Your task to perform on an android device: When is my next appointment? Image 0: 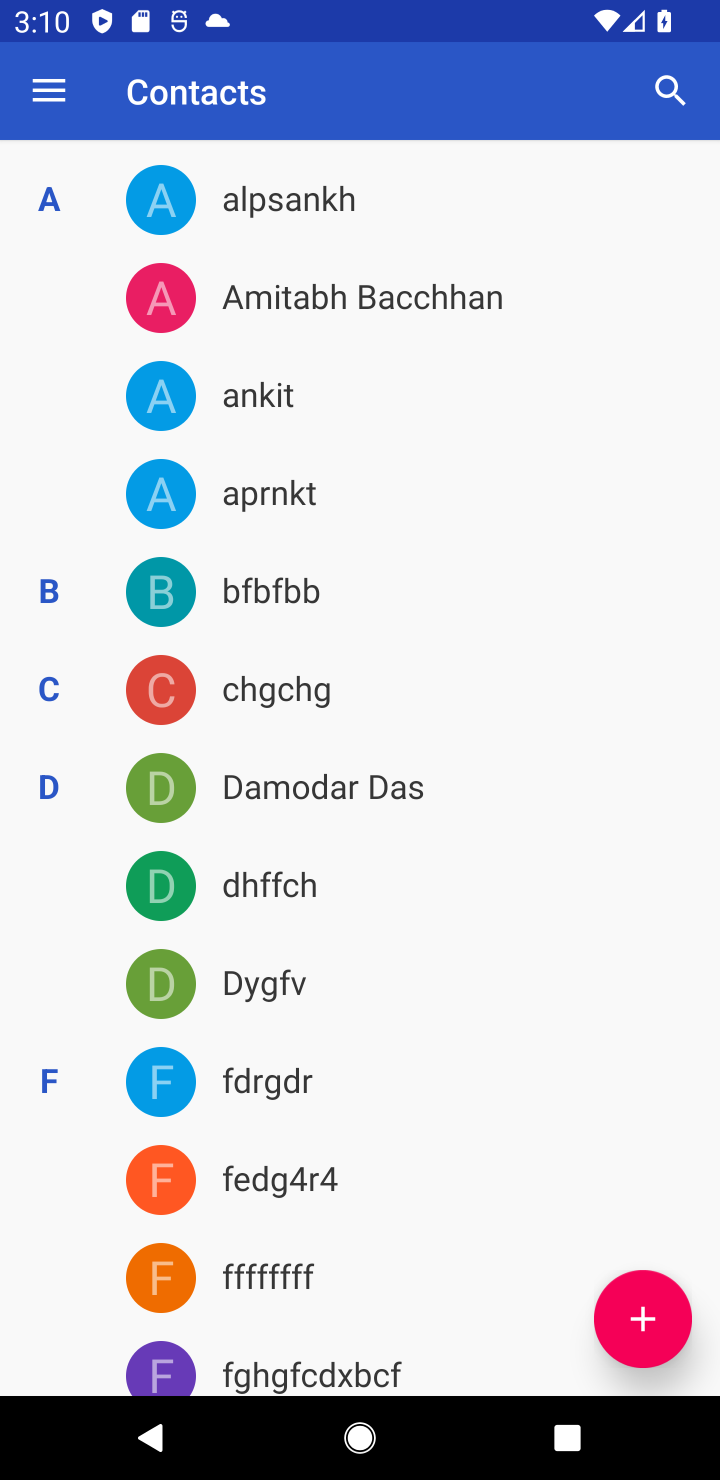
Step 0: press home button
Your task to perform on an android device: When is my next appointment? Image 1: 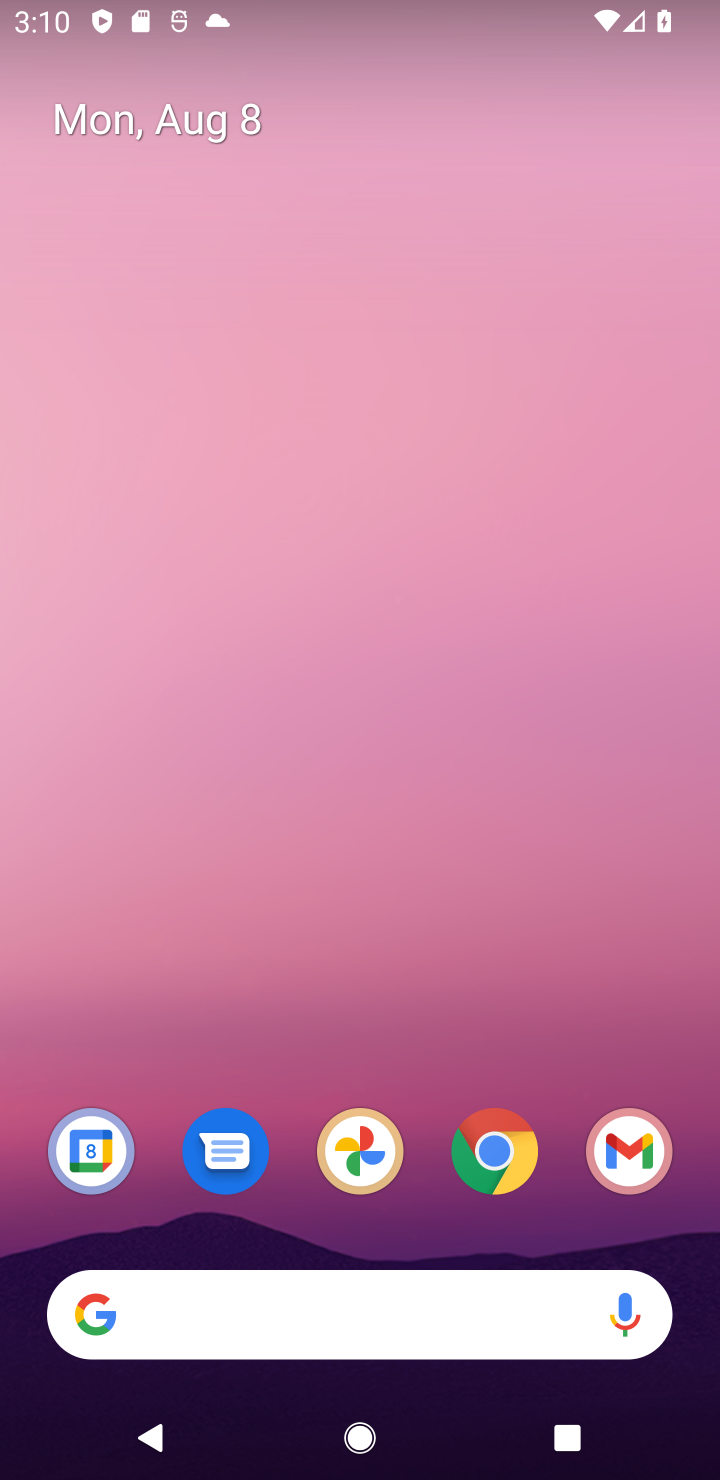
Step 1: drag from (274, 1223) to (387, 101)
Your task to perform on an android device: When is my next appointment? Image 2: 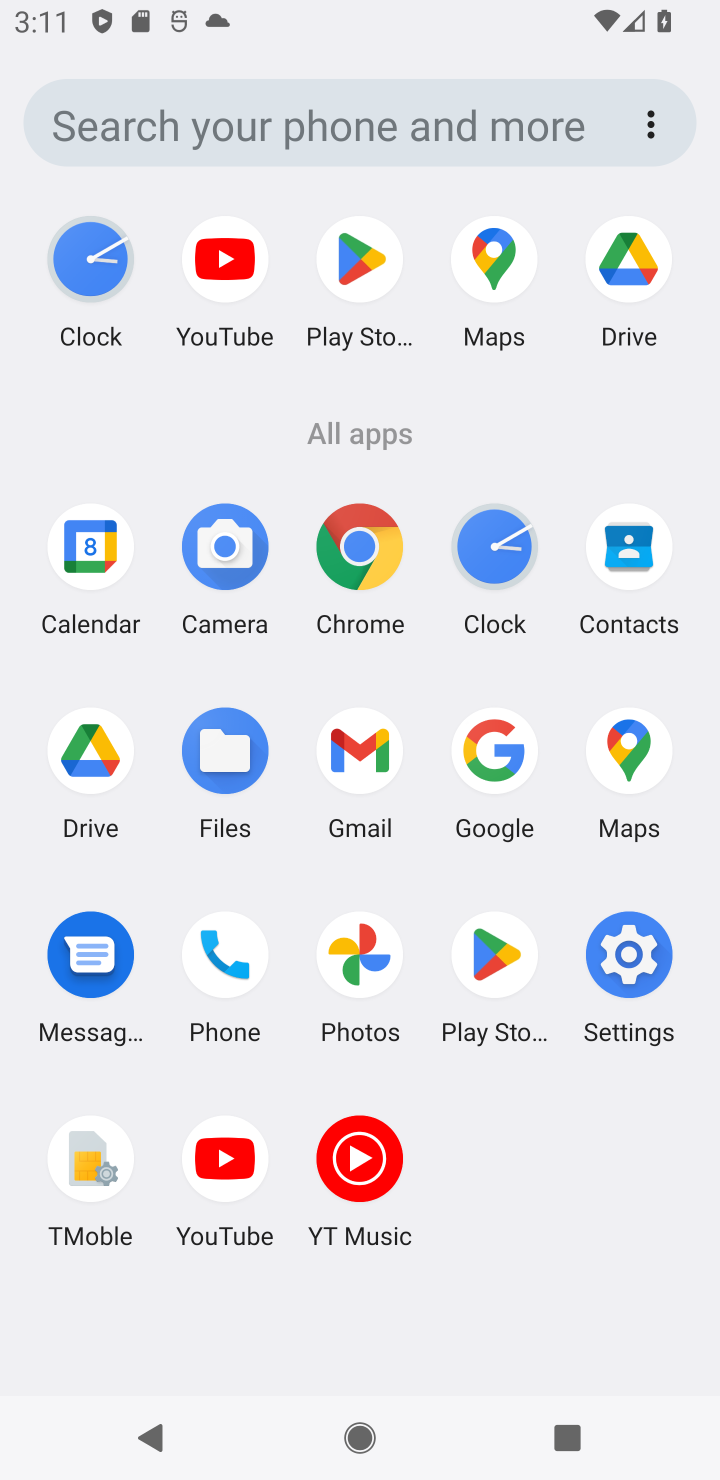
Step 2: click (122, 545)
Your task to perform on an android device: When is my next appointment? Image 3: 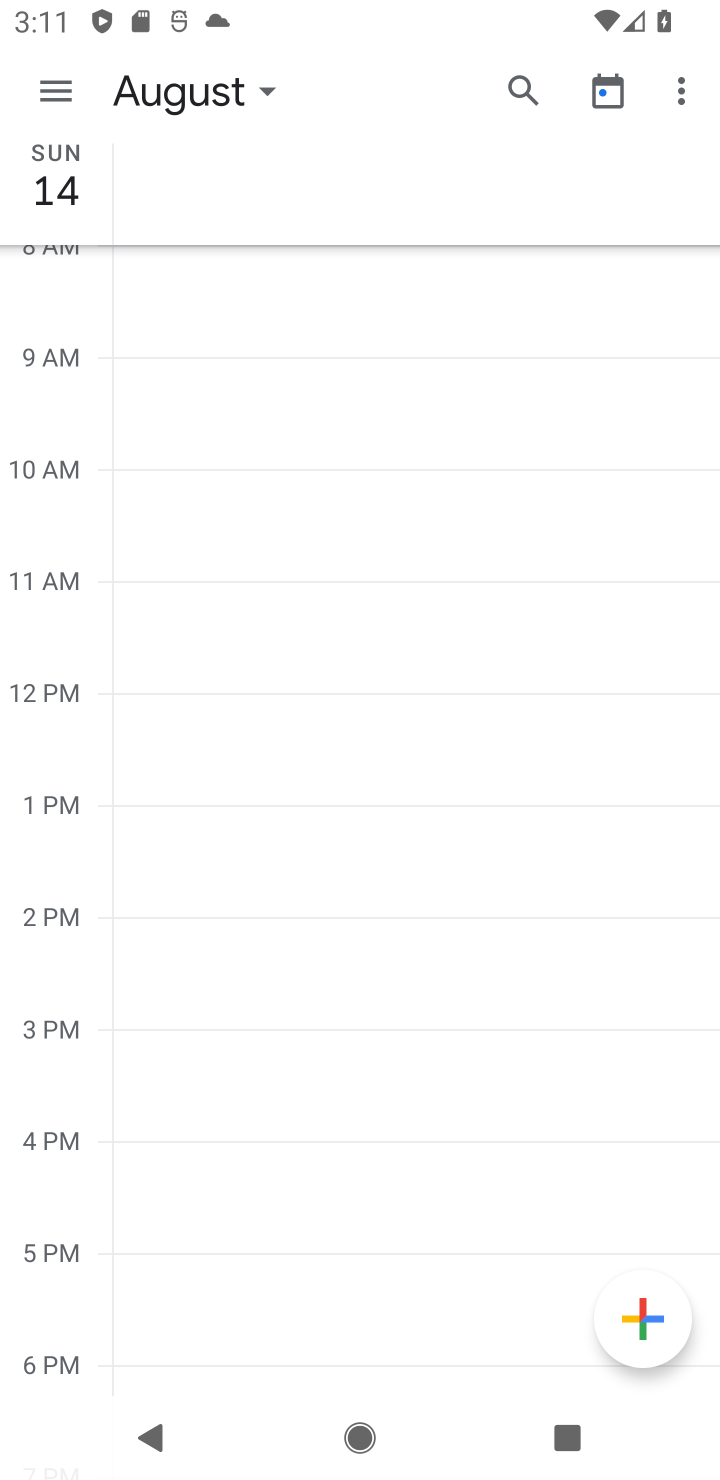
Step 3: click (264, 81)
Your task to perform on an android device: When is my next appointment? Image 4: 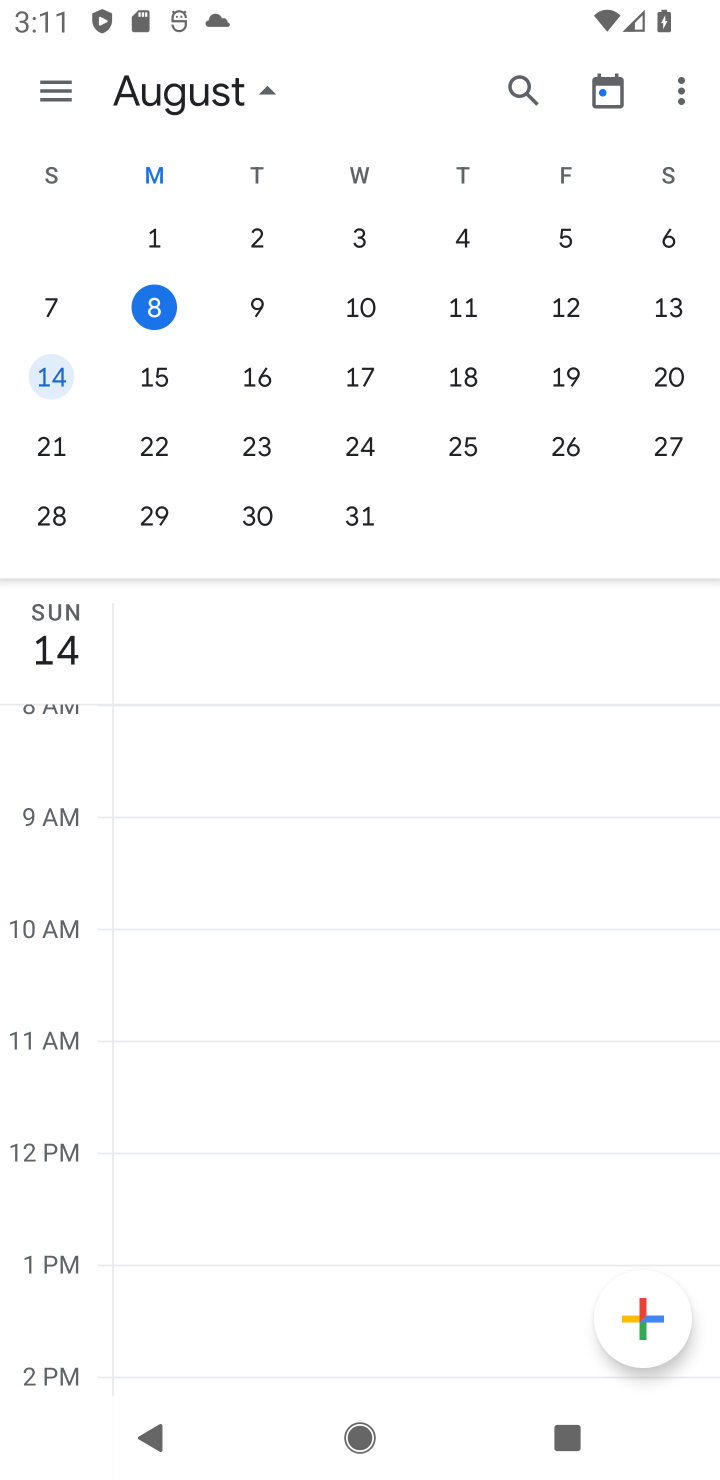
Step 4: click (243, 328)
Your task to perform on an android device: When is my next appointment? Image 5: 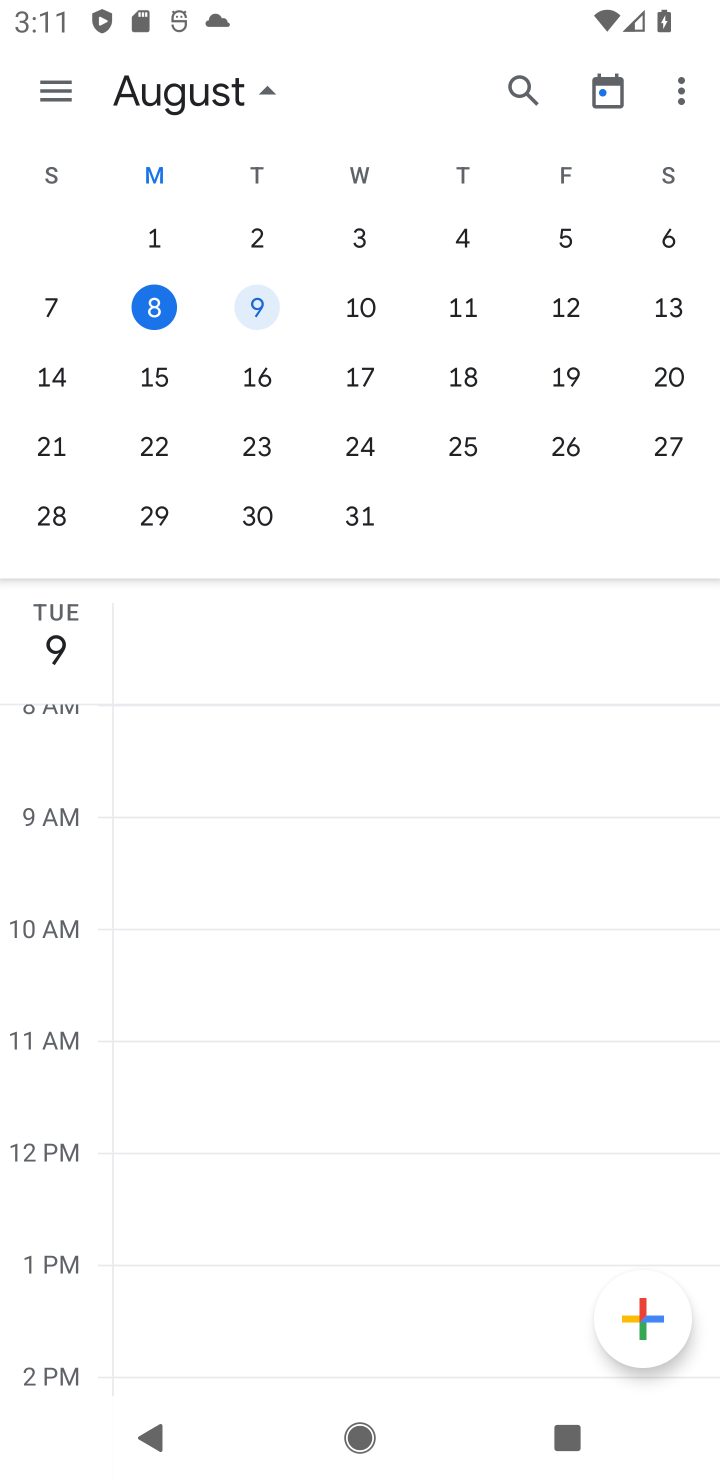
Step 5: click (370, 311)
Your task to perform on an android device: When is my next appointment? Image 6: 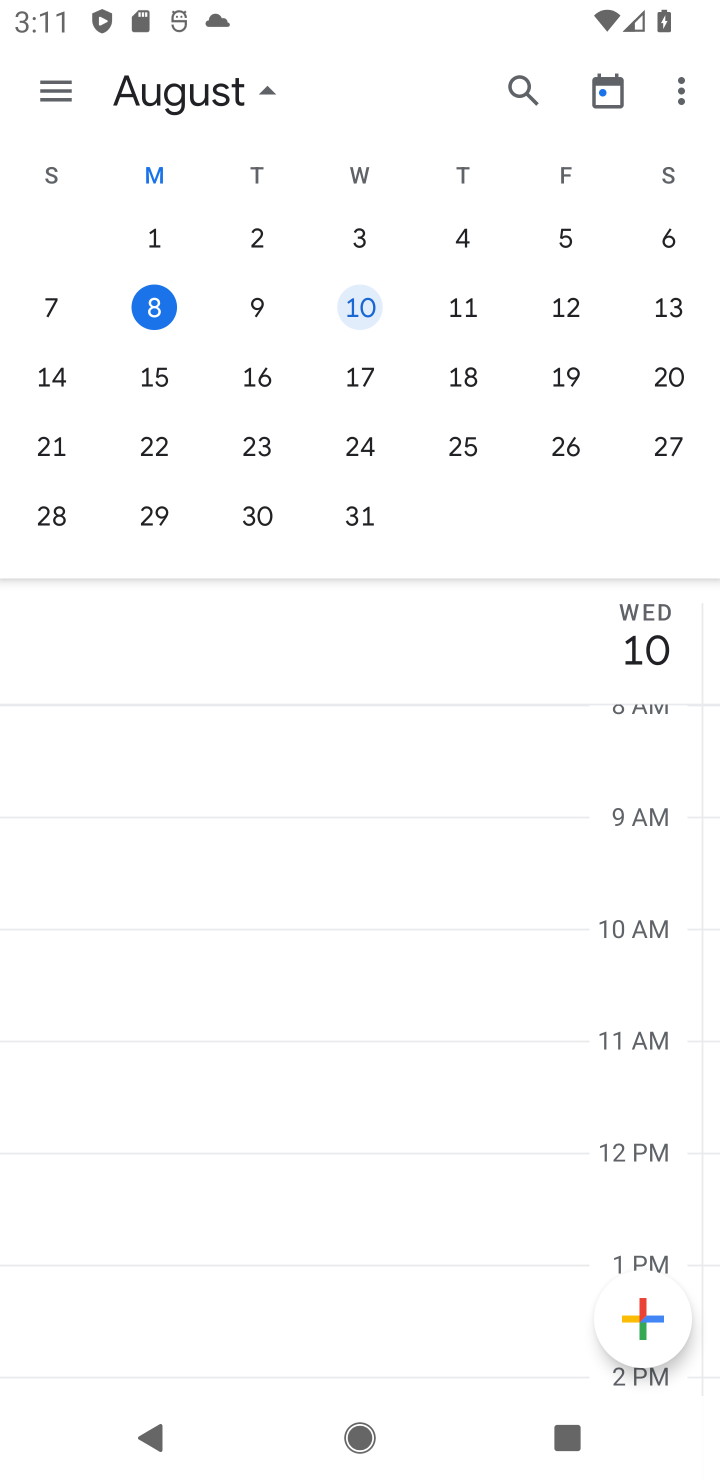
Step 6: click (485, 319)
Your task to perform on an android device: When is my next appointment? Image 7: 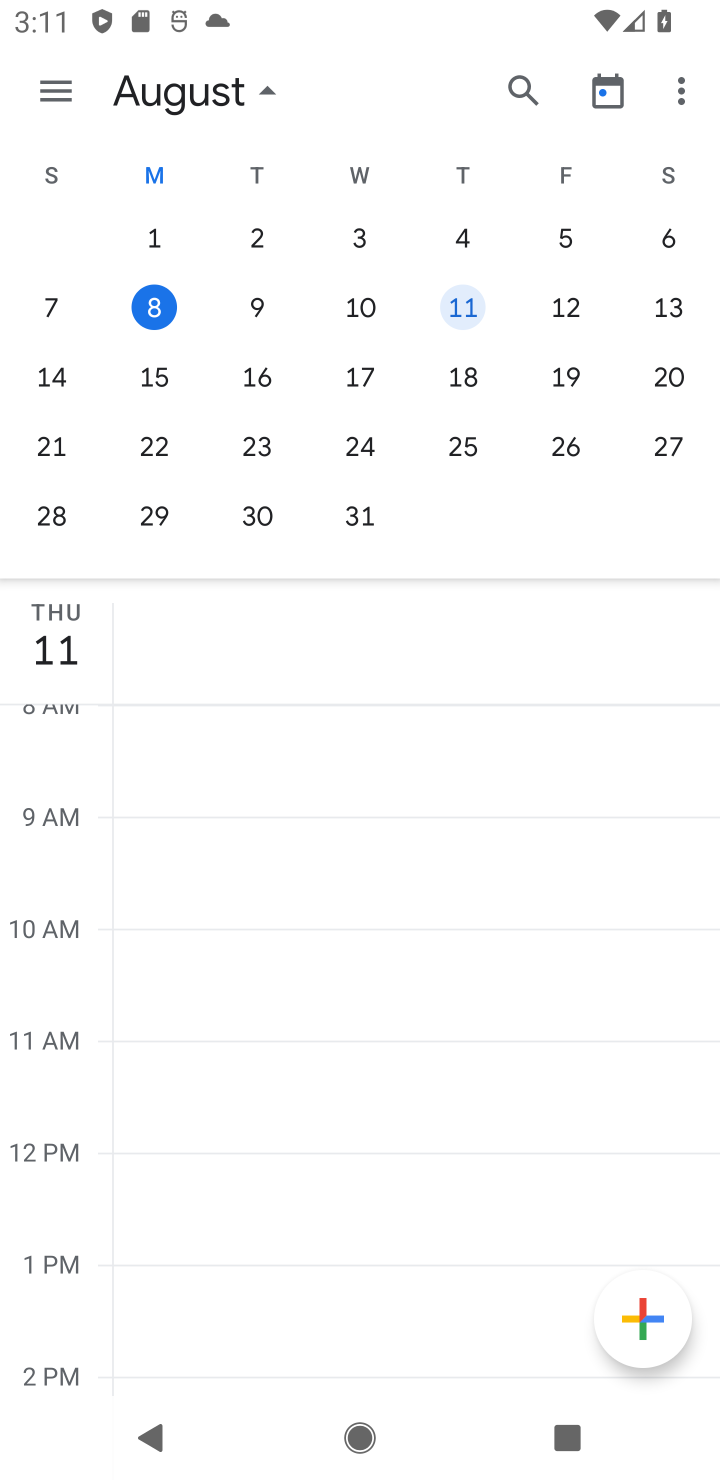
Step 7: task complete